Your task to perform on an android device: Search for vegetarian restaurants on Maps Image 0: 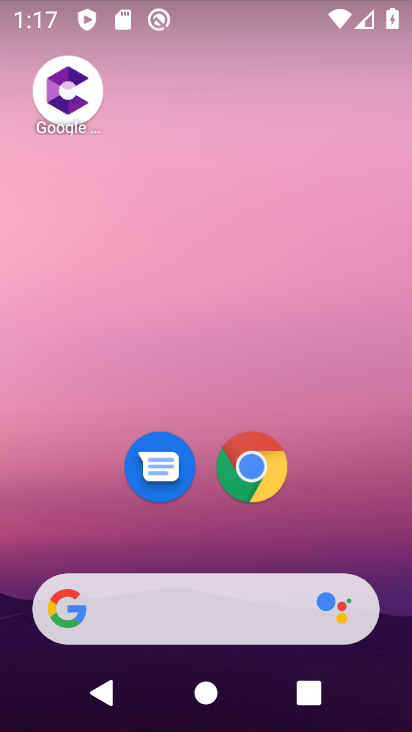
Step 0: drag from (364, 497) to (291, 40)
Your task to perform on an android device: Search for vegetarian restaurants on Maps Image 1: 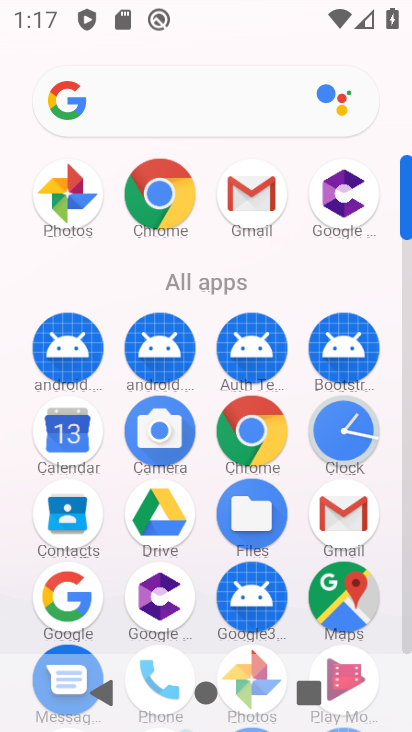
Step 1: click (333, 578)
Your task to perform on an android device: Search for vegetarian restaurants on Maps Image 2: 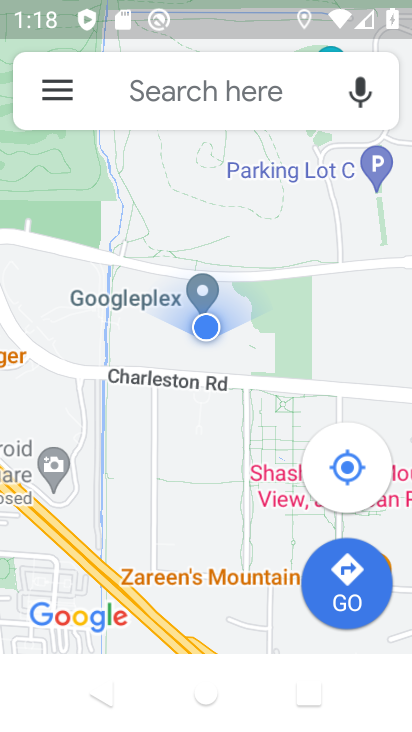
Step 2: click (224, 114)
Your task to perform on an android device: Search for vegetarian restaurants on Maps Image 3: 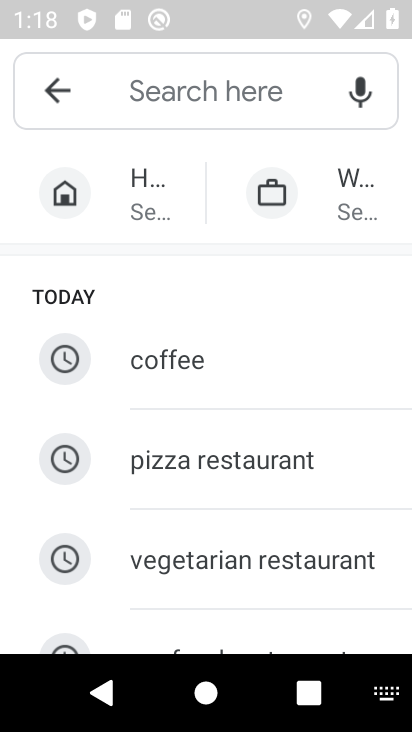
Step 3: click (297, 557)
Your task to perform on an android device: Search for vegetarian restaurants on Maps Image 4: 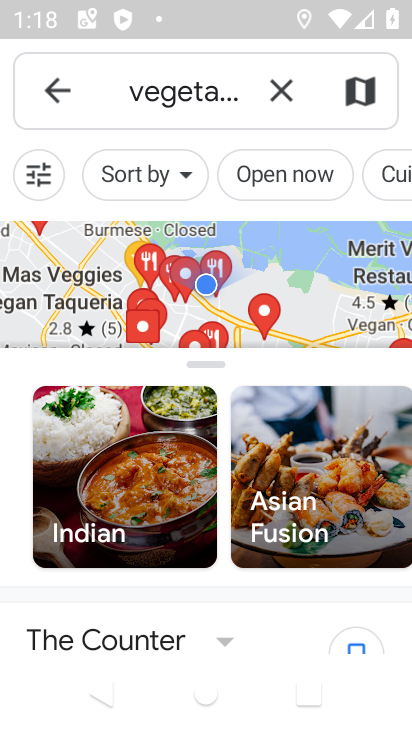
Step 4: task complete